Your task to perform on an android device: delete location history Image 0: 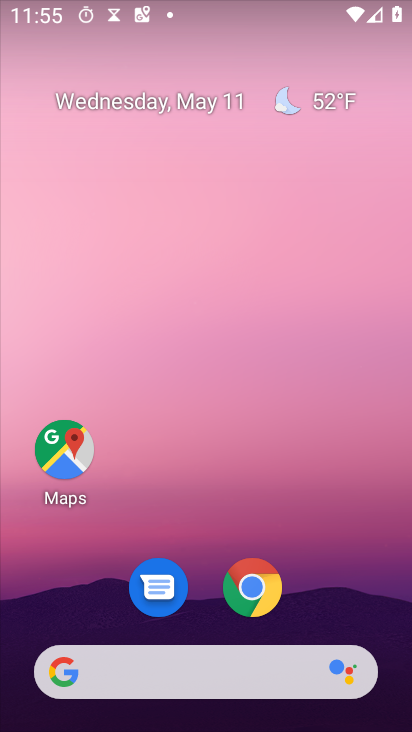
Step 0: drag from (223, 683) to (368, 201)
Your task to perform on an android device: delete location history Image 1: 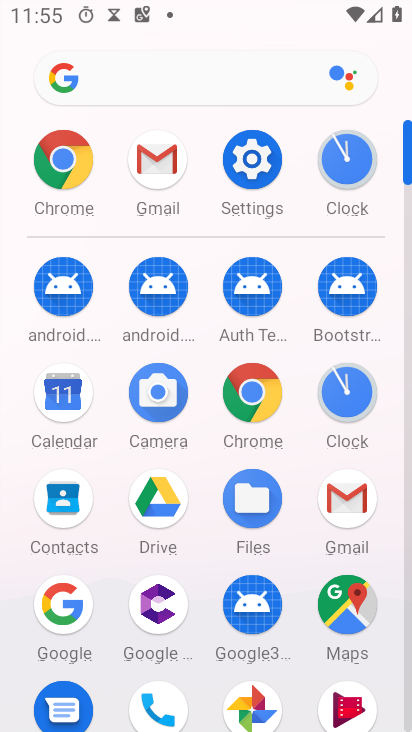
Step 1: click (244, 159)
Your task to perform on an android device: delete location history Image 2: 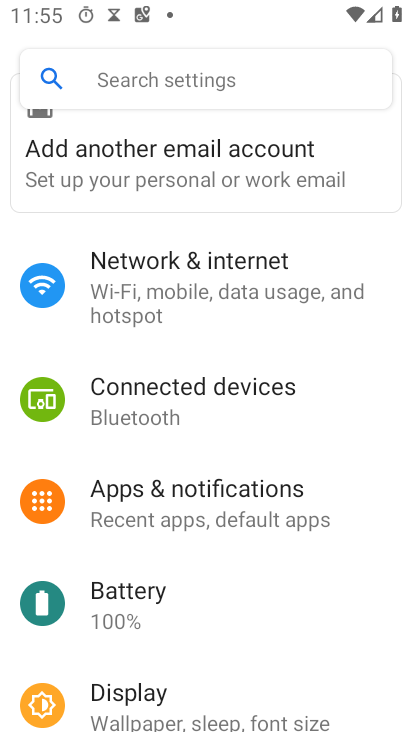
Step 2: click (173, 79)
Your task to perform on an android device: delete location history Image 3: 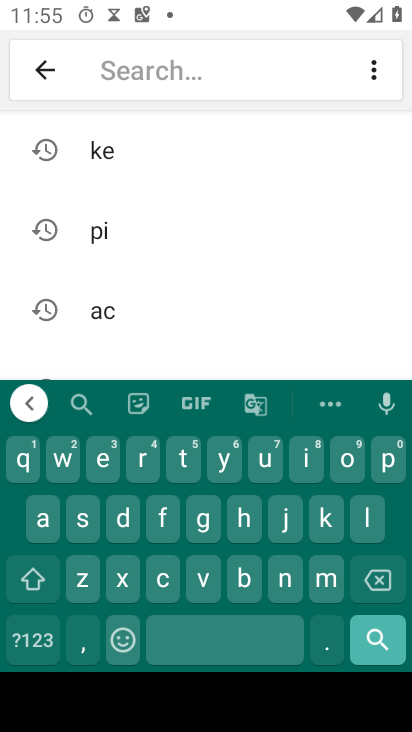
Step 3: click (360, 521)
Your task to perform on an android device: delete location history Image 4: 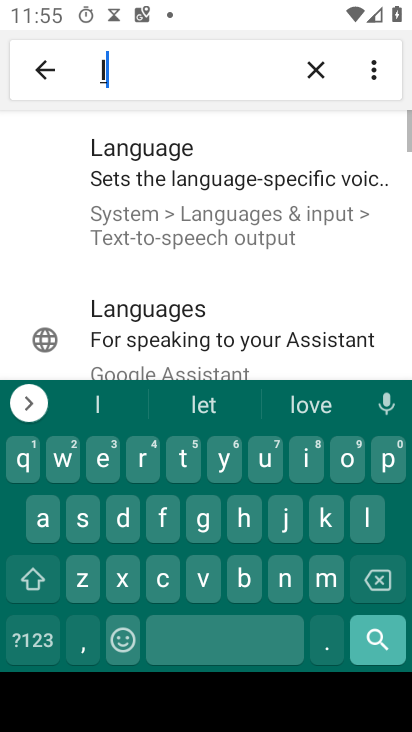
Step 4: click (346, 462)
Your task to perform on an android device: delete location history Image 5: 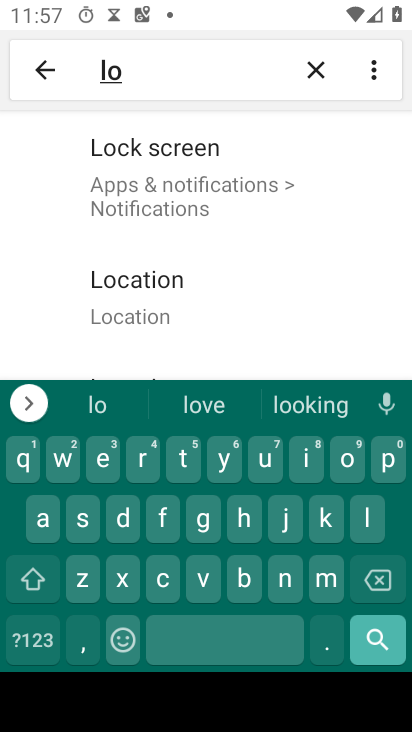
Step 5: click (157, 303)
Your task to perform on an android device: delete location history Image 6: 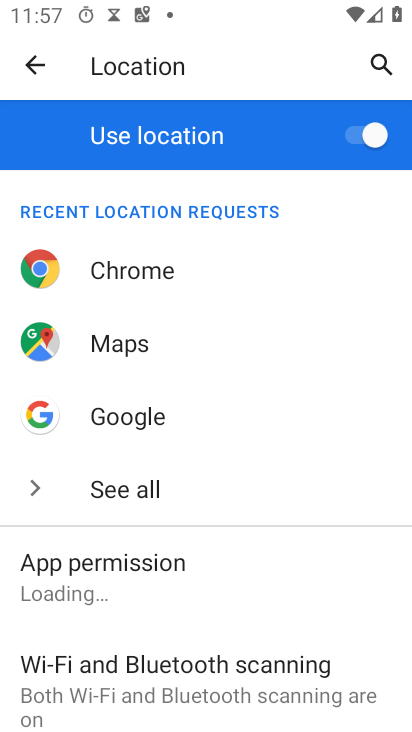
Step 6: drag from (122, 637) to (175, 467)
Your task to perform on an android device: delete location history Image 7: 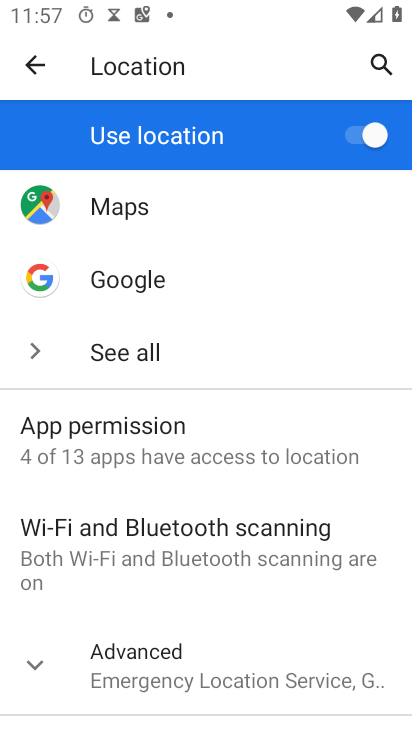
Step 7: click (116, 657)
Your task to perform on an android device: delete location history Image 8: 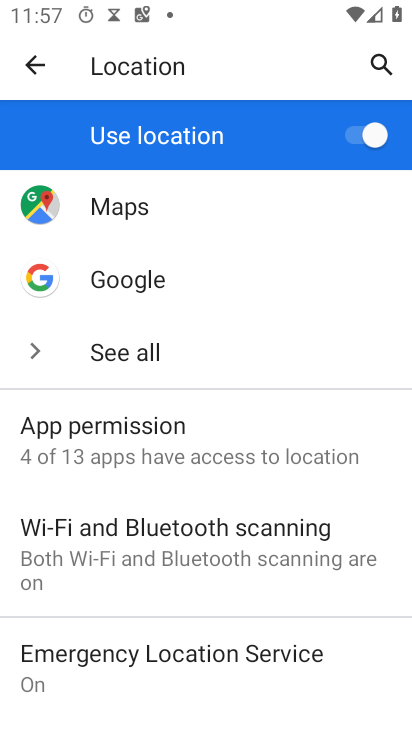
Step 8: drag from (125, 653) to (154, 499)
Your task to perform on an android device: delete location history Image 9: 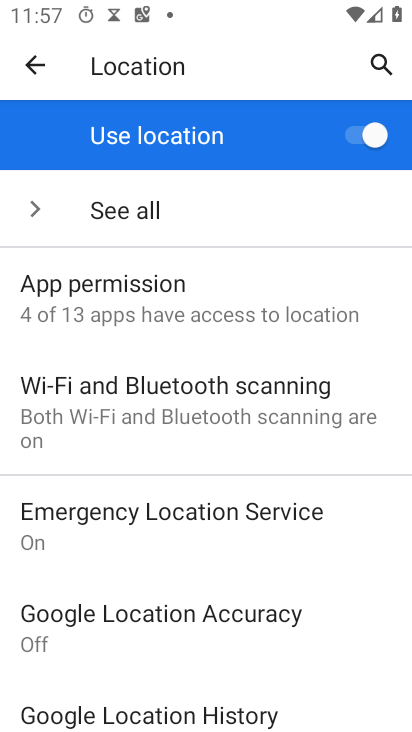
Step 9: click (125, 707)
Your task to perform on an android device: delete location history Image 10: 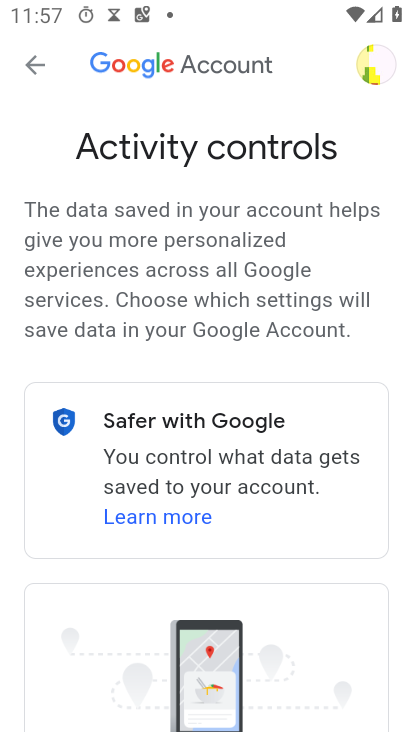
Step 10: task complete